Your task to perform on an android device: Search for seafood restaurants on Google Maps Image 0: 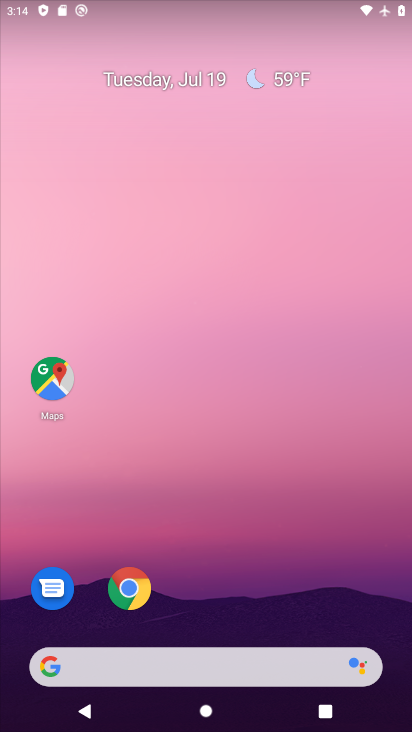
Step 0: press home button
Your task to perform on an android device: Search for seafood restaurants on Google Maps Image 1: 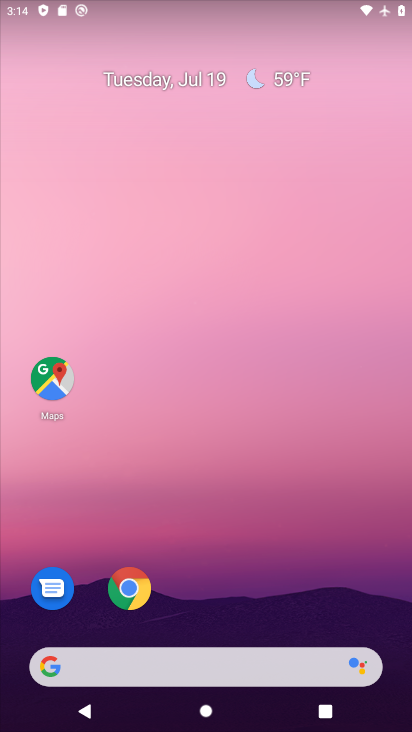
Step 1: drag from (244, 550) to (172, 19)
Your task to perform on an android device: Search for seafood restaurants on Google Maps Image 2: 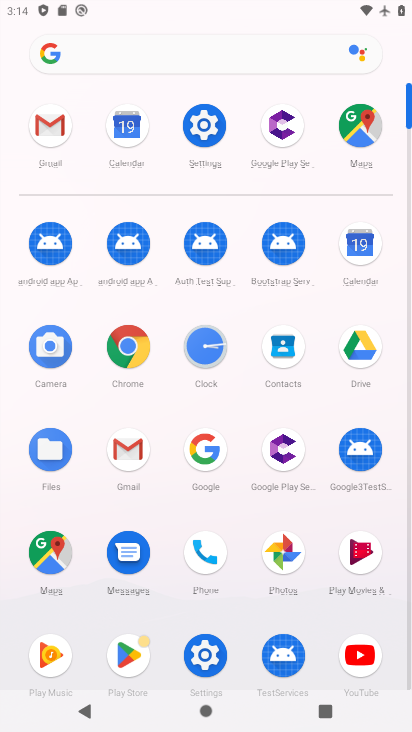
Step 2: click (364, 128)
Your task to perform on an android device: Search for seafood restaurants on Google Maps Image 3: 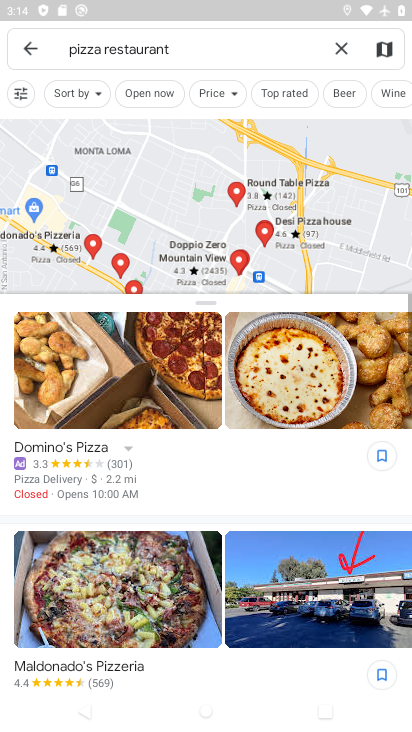
Step 3: click (343, 55)
Your task to perform on an android device: Search for seafood restaurants on Google Maps Image 4: 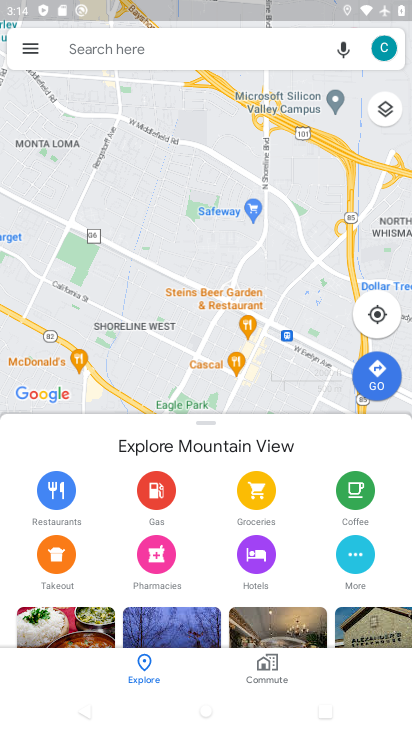
Step 4: click (106, 47)
Your task to perform on an android device: Search for seafood restaurants on Google Maps Image 5: 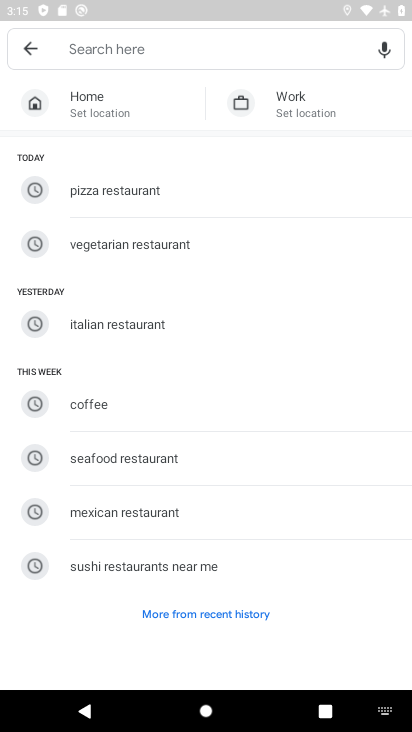
Step 5: click (112, 462)
Your task to perform on an android device: Search for seafood restaurants on Google Maps Image 6: 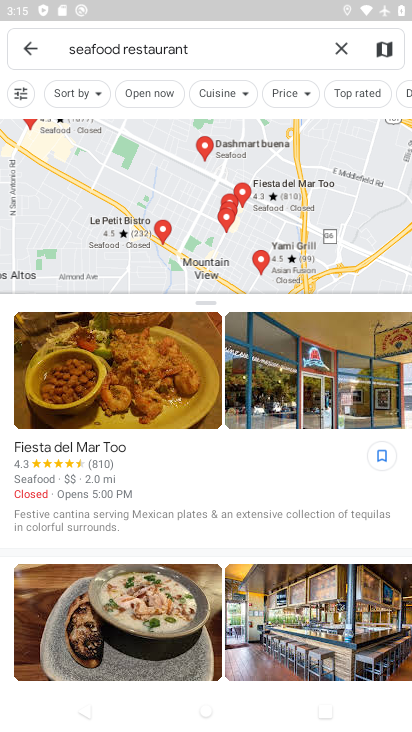
Step 6: task complete